Your task to perform on an android device: Open Google Chrome and click the shortcut for Amazon.com Image 0: 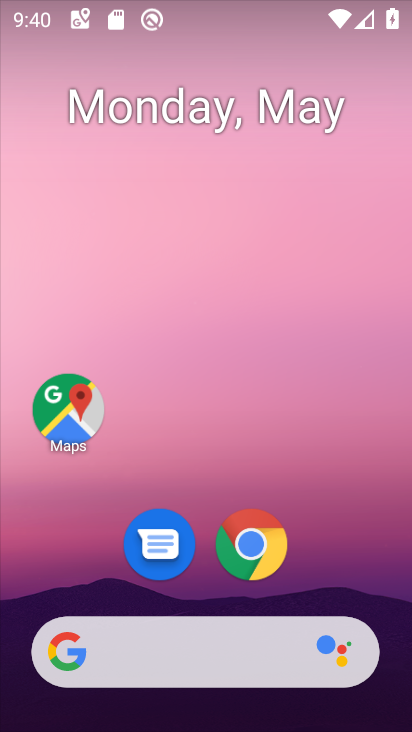
Step 0: drag from (381, 566) to (372, 175)
Your task to perform on an android device: Open Google Chrome and click the shortcut for Amazon.com Image 1: 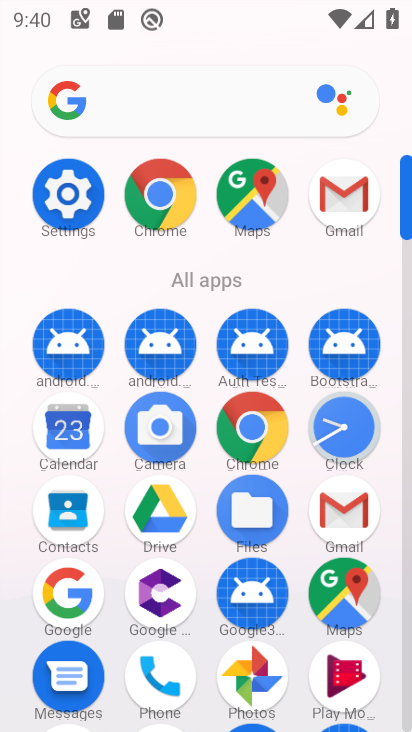
Step 1: click (156, 191)
Your task to perform on an android device: Open Google Chrome and click the shortcut for Amazon.com Image 2: 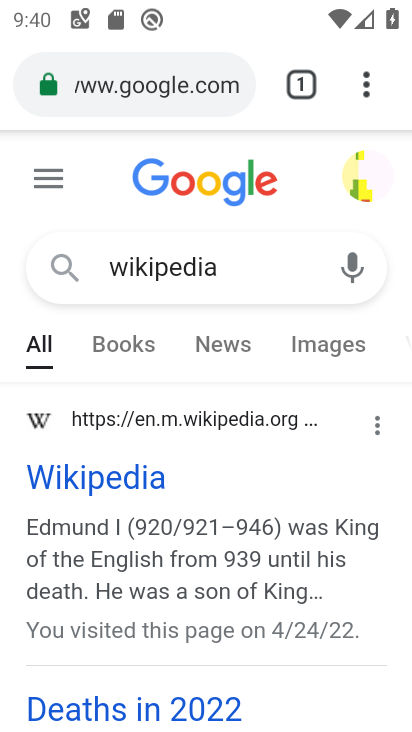
Step 2: click (212, 102)
Your task to perform on an android device: Open Google Chrome and click the shortcut for Amazon.com Image 3: 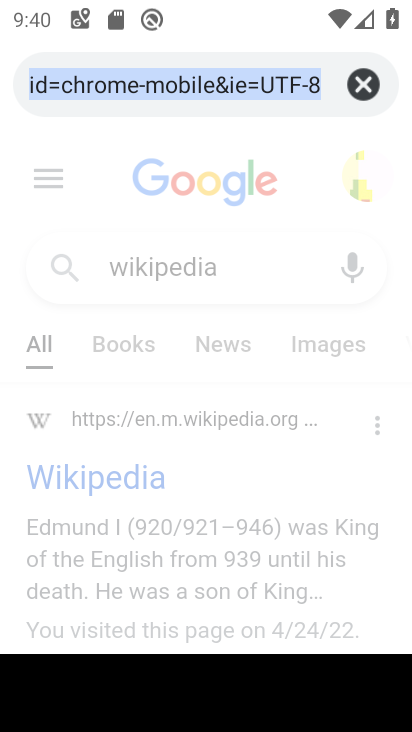
Step 3: click (363, 84)
Your task to perform on an android device: Open Google Chrome and click the shortcut for Amazon.com Image 4: 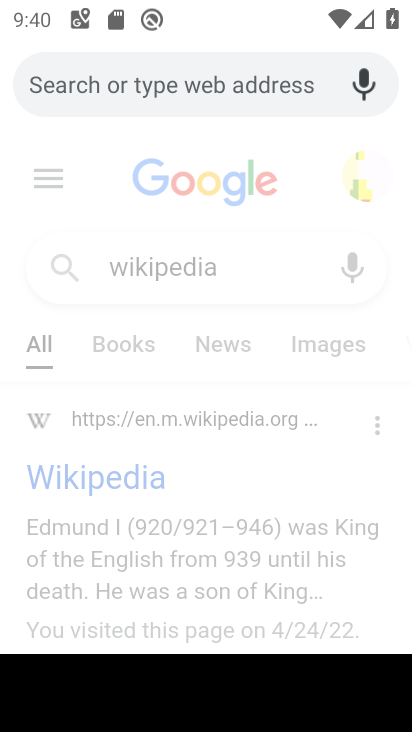
Step 4: type "amazon.com"
Your task to perform on an android device: Open Google Chrome and click the shortcut for Amazon.com Image 5: 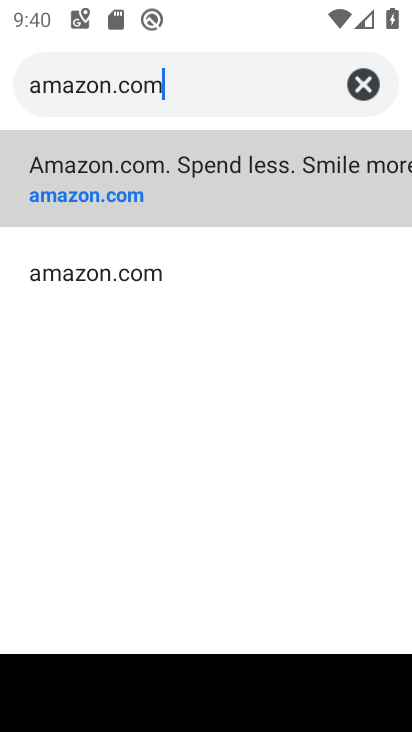
Step 5: click (123, 175)
Your task to perform on an android device: Open Google Chrome and click the shortcut for Amazon.com Image 6: 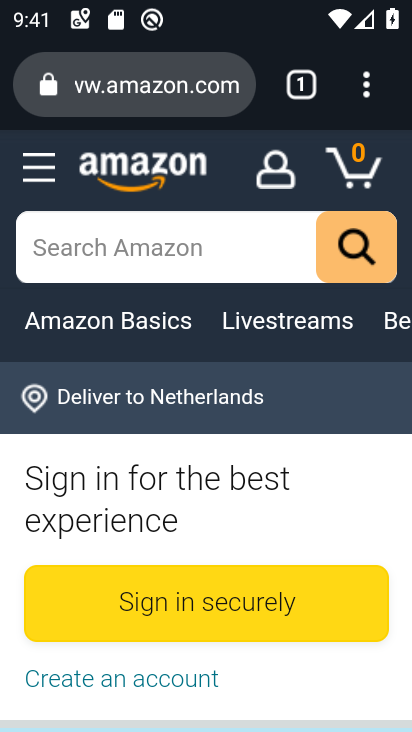
Step 6: task complete